Your task to perform on an android device: Open Google Maps Image 0: 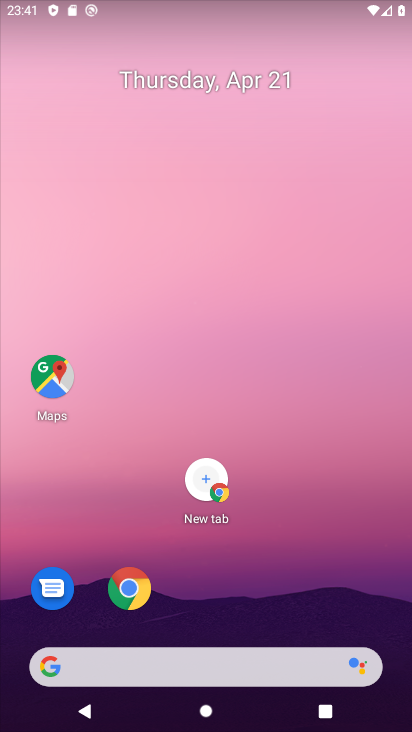
Step 0: click (50, 368)
Your task to perform on an android device: Open Google Maps Image 1: 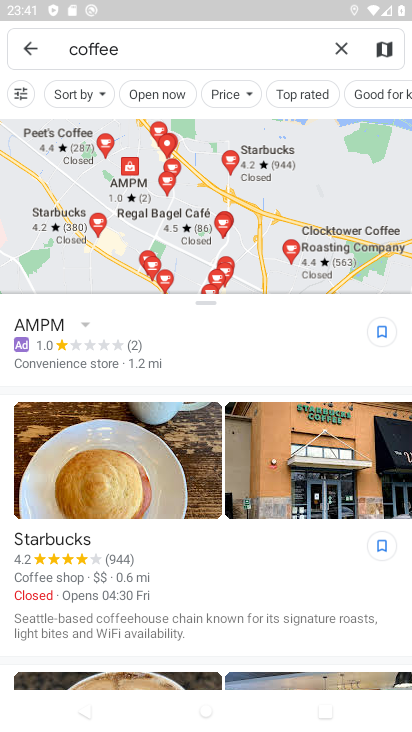
Step 1: task complete